Your task to perform on an android device: refresh tabs in the chrome app Image 0: 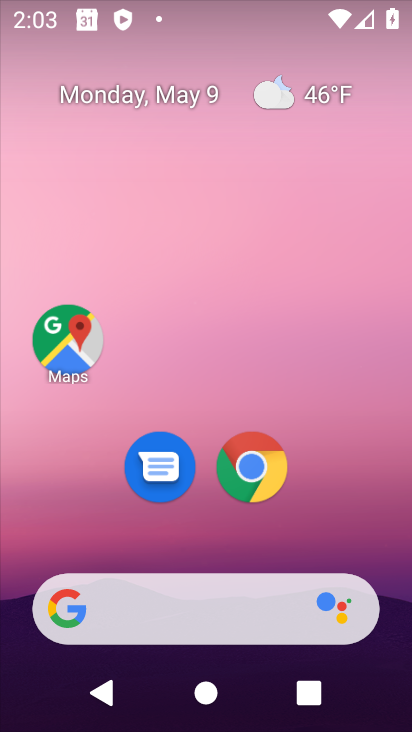
Step 0: click (249, 462)
Your task to perform on an android device: refresh tabs in the chrome app Image 1: 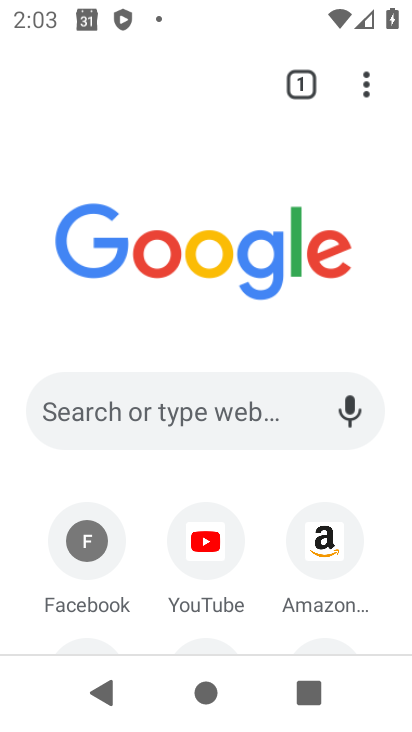
Step 1: click (369, 82)
Your task to perform on an android device: refresh tabs in the chrome app Image 2: 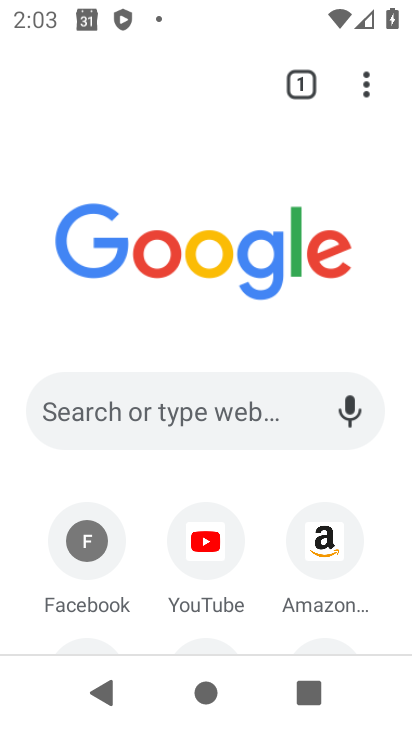
Step 2: task complete